Your task to perform on an android device: Go to eBay Image 0: 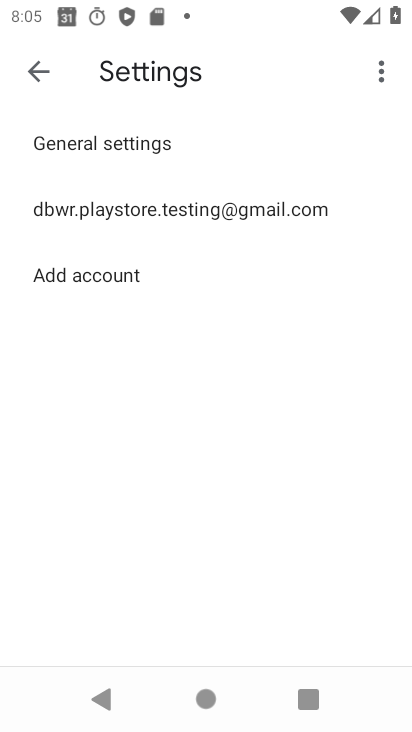
Step 0: press home button
Your task to perform on an android device: Go to eBay Image 1: 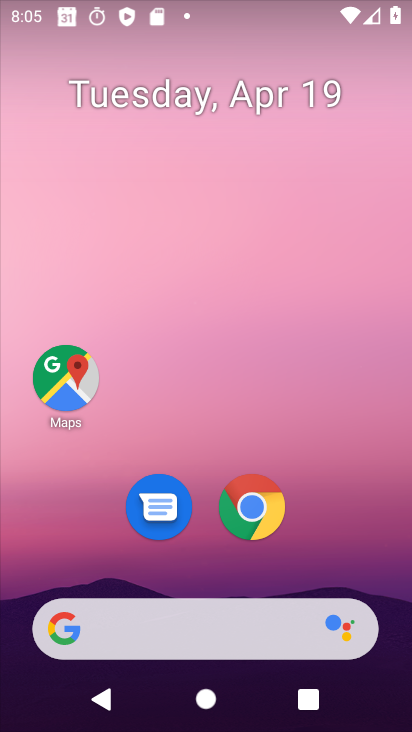
Step 1: click (249, 517)
Your task to perform on an android device: Go to eBay Image 2: 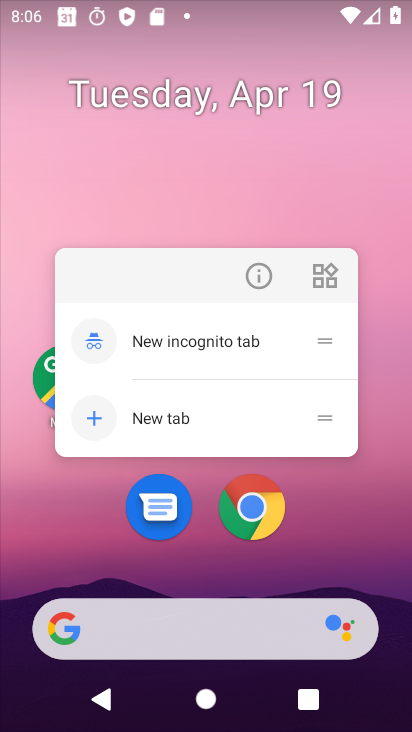
Step 2: click (267, 494)
Your task to perform on an android device: Go to eBay Image 3: 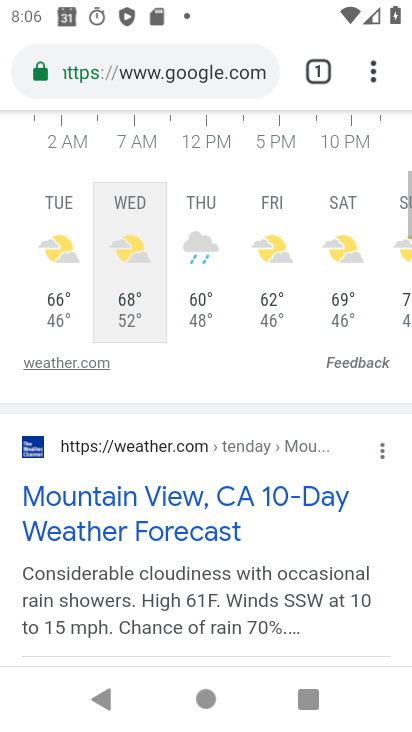
Step 3: click (318, 72)
Your task to perform on an android device: Go to eBay Image 4: 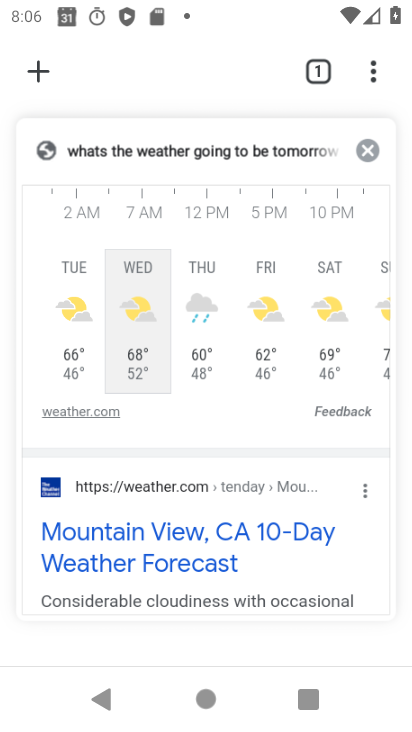
Step 4: click (39, 71)
Your task to perform on an android device: Go to eBay Image 5: 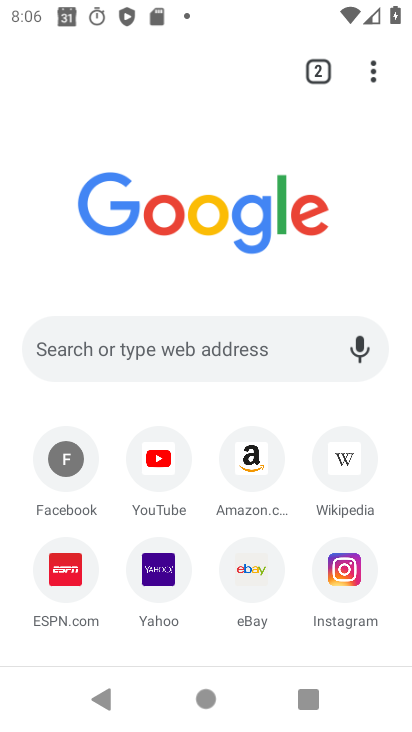
Step 5: click (247, 566)
Your task to perform on an android device: Go to eBay Image 6: 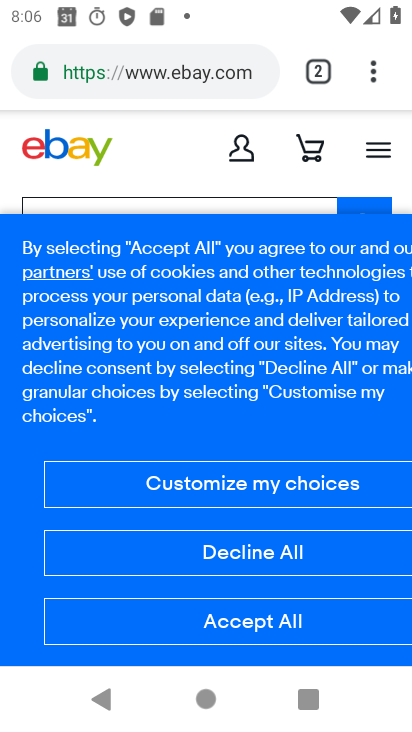
Step 6: task complete